Your task to perform on an android device: turn vacation reply on in the gmail app Image 0: 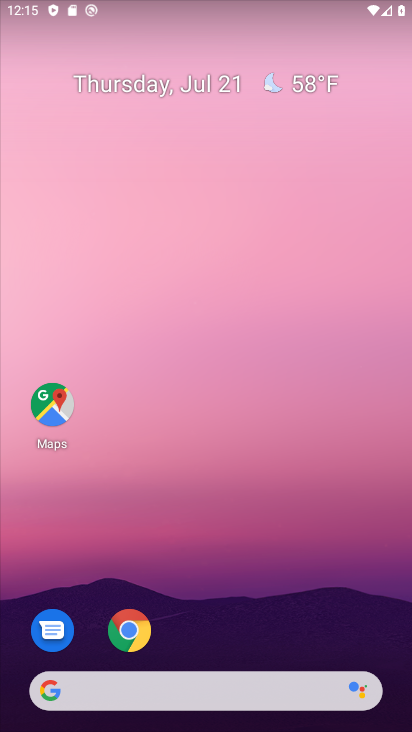
Step 0: drag from (189, 696) to (182, 59)
Your task to perform on an android device: turn vacation reply on in the gmail app Image 1: 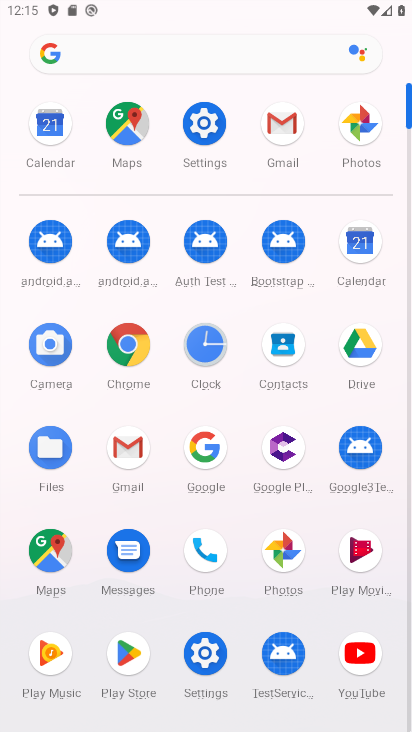
Step 1: click (144, 439)
Your task to perform on an android device: turn vacation reply on in the gmail app Image 2: 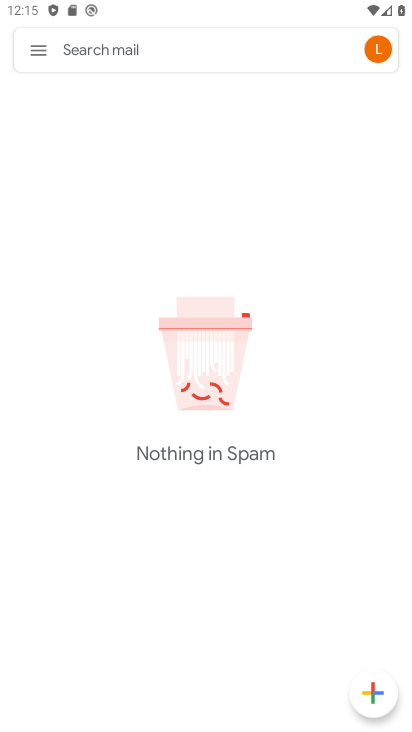
Step 2: click (36, 57)
Your task to perform on an android device: turn vacation reply on in the gmail app Image 3: 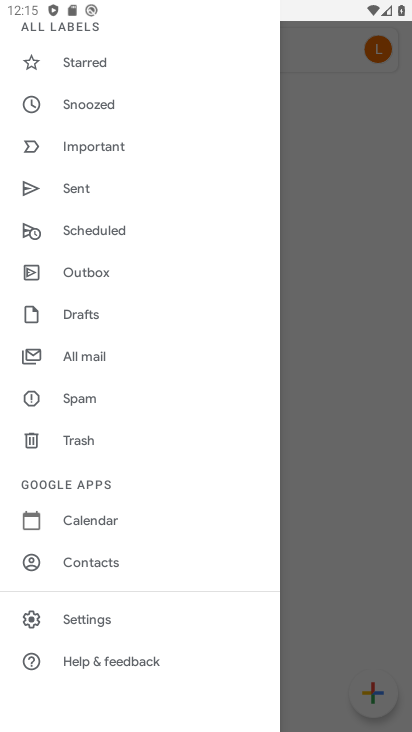
Step 3: click (99, 632)
Your task to perform on an android device: turn vacation reply on in the gmail app Image 4: 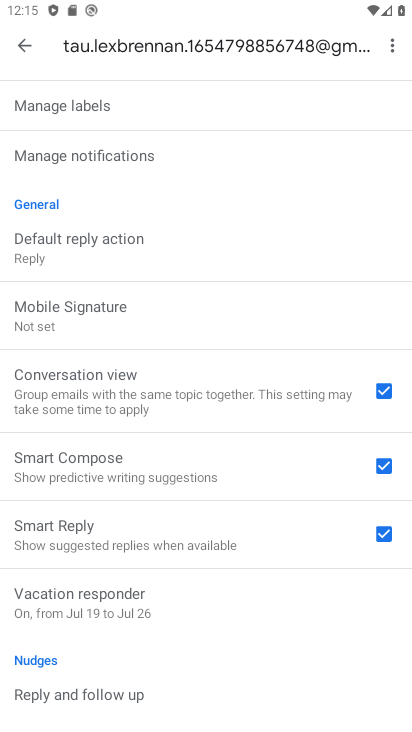
Step 4: click (171, 622)
Your task to perform on an android device: turn vacation reply on in the gmail app Image 5: 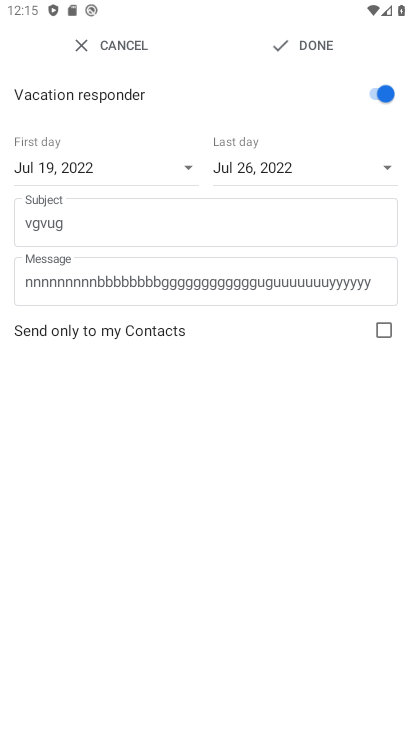
Step 5: task complete